Your task to perform on an android device: Open the web browser Image 0: 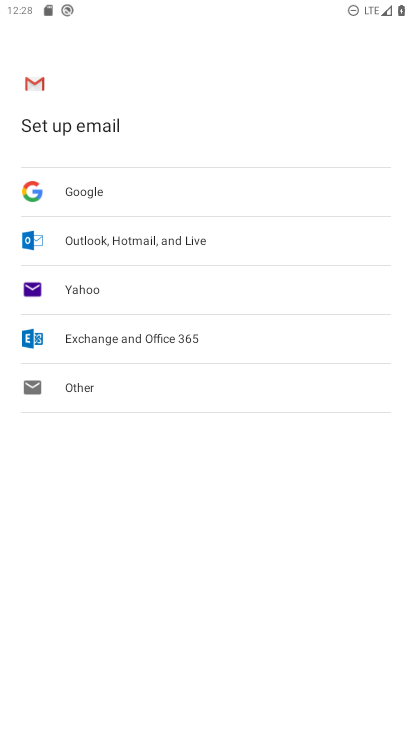
Step 0: press home button
Your task to perform on an android device: Open the web browser Image 1: 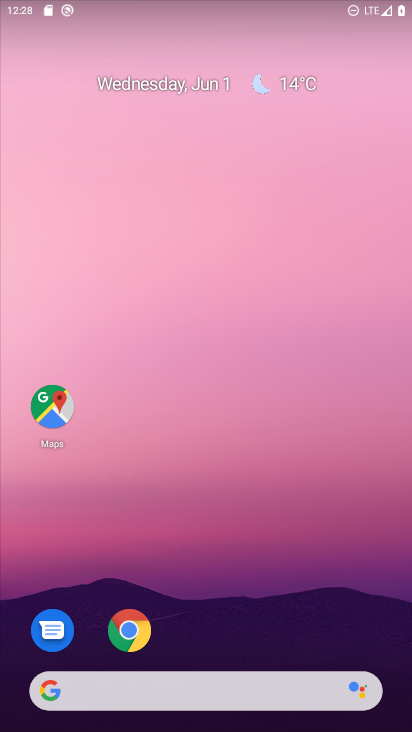
Step 1: click (132, 627)
Your task to perform on an android device: Open the web browser Image 2: 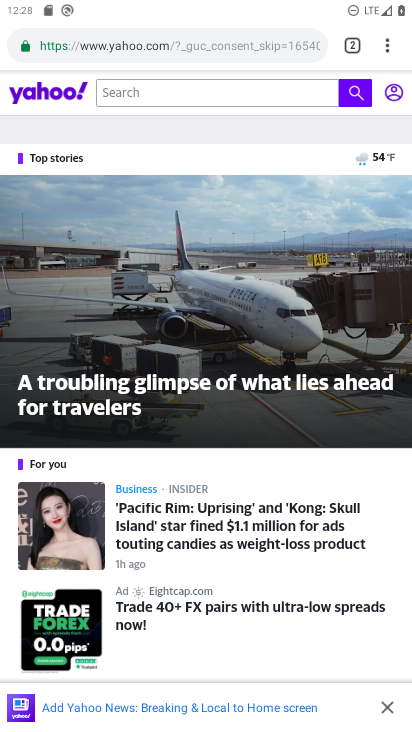
Step 2: task complete